Your task to perform on an android device: set default search engine in the chrome app Image 0: 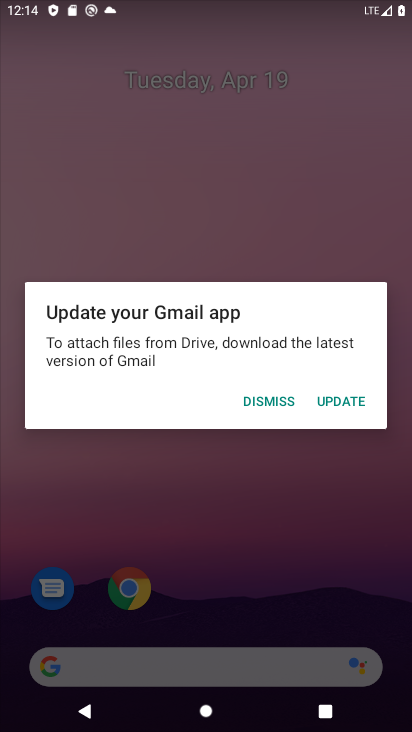
Step 0: press home button
Your task to perform on an android device: set default search engine in the chrome app Image 1: 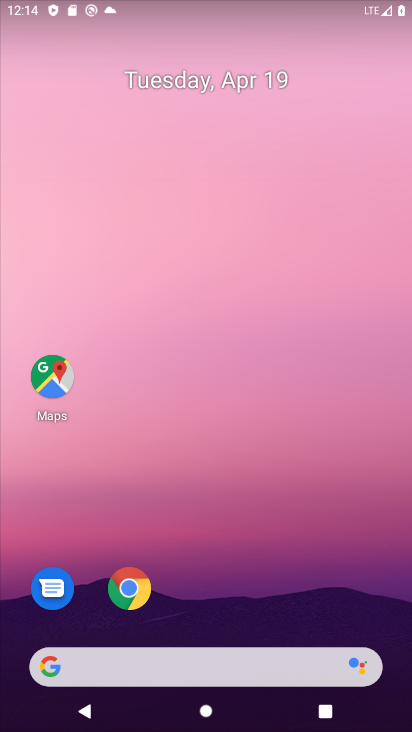
Step 1: drag from (393, 569) to (379, 340)
Your task to perform on an android device: set default search engine in the chrome app Image 2: 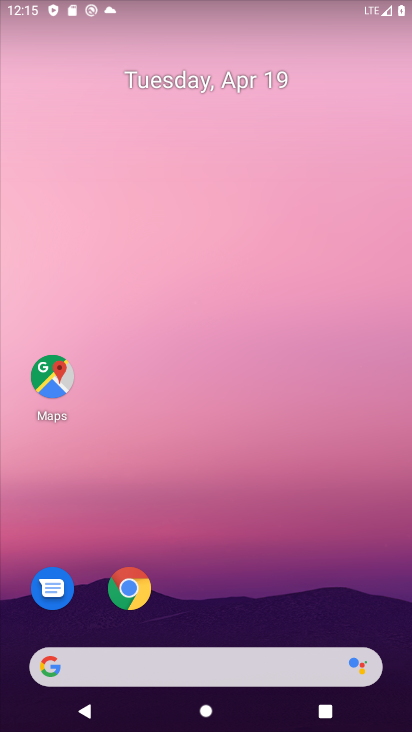
Step 2: drag from (379, 532) to (372, 0)
Your task to perform on an android device: set default search engine in the chrome app Image 3: 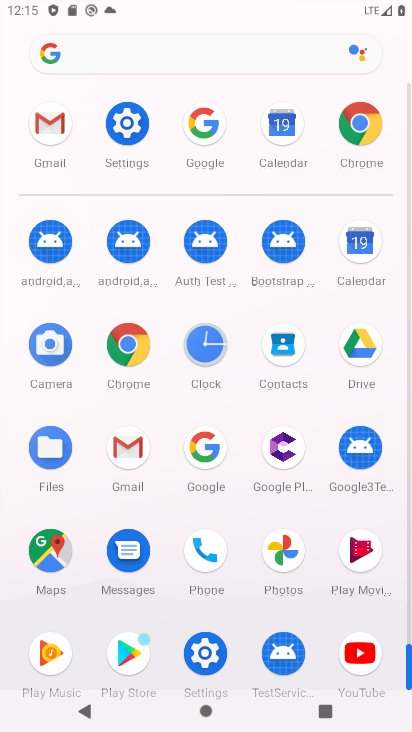
Step 3: click (125, 349)
Your task to perform on an android device: set default search engine in the chrome app Image 4: 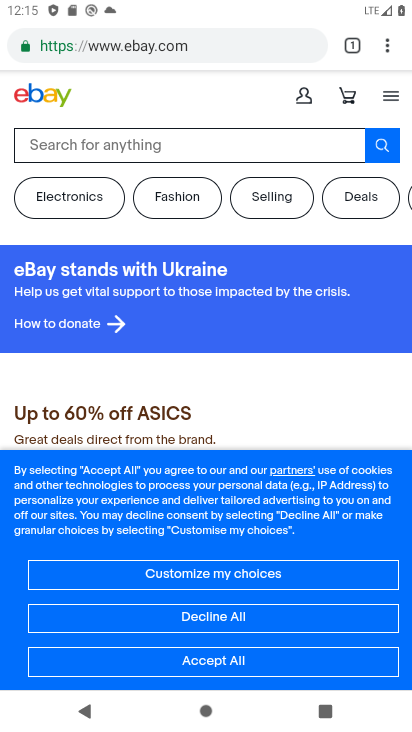
Step 4: click (384, 44)
Your task to perform on an android device: set default search engine in the chrome app Image 5: 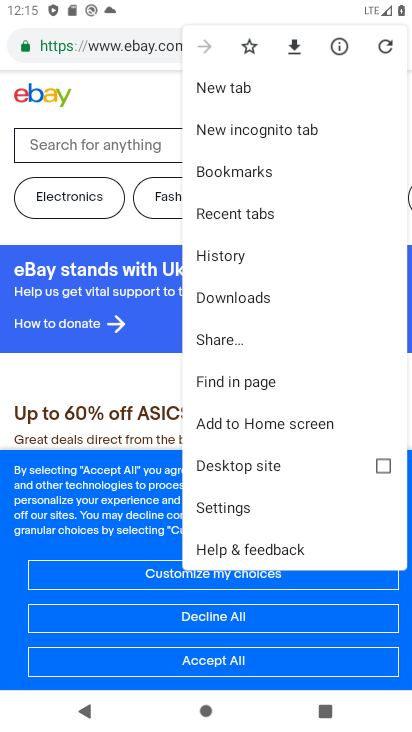
Step 5: click (228, 509)
Your task to perform on an android device: set default search engine in the chrome app Image 6: 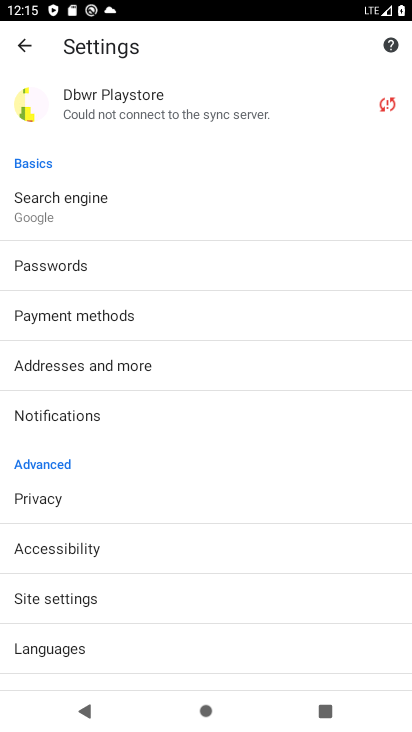
Step 6: click (50, 201)
Your task to perform on an android device: set default search engine in the chrome app Image 7: 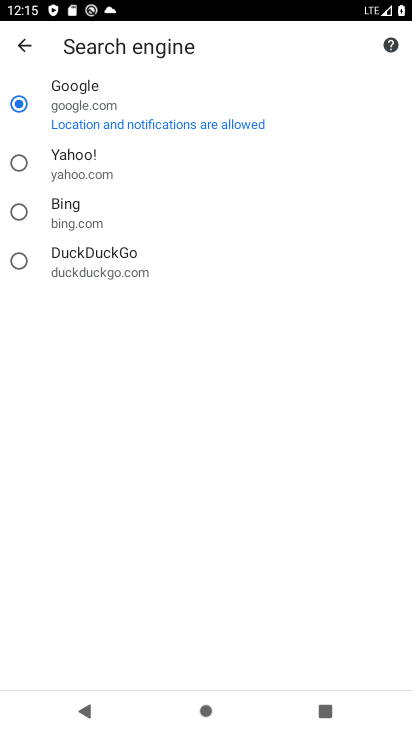
Step 7: click (61, 208)
Your task to perform on an android device: set default search engine in the chrome app Image 8: 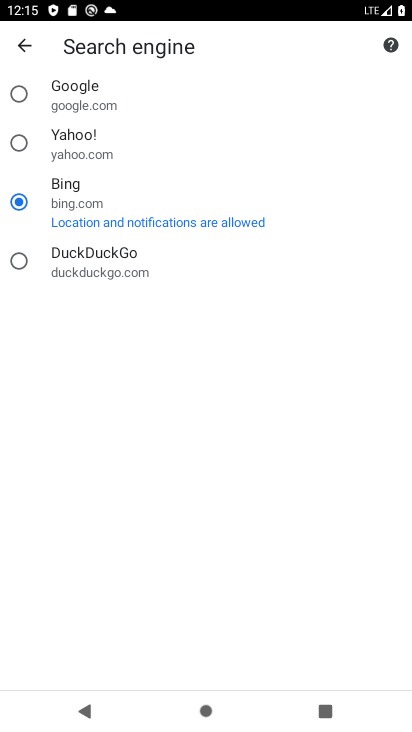
Step 8: task complete